Your task to perform on an android device: turn on the 24-hour format for clock Image 0: 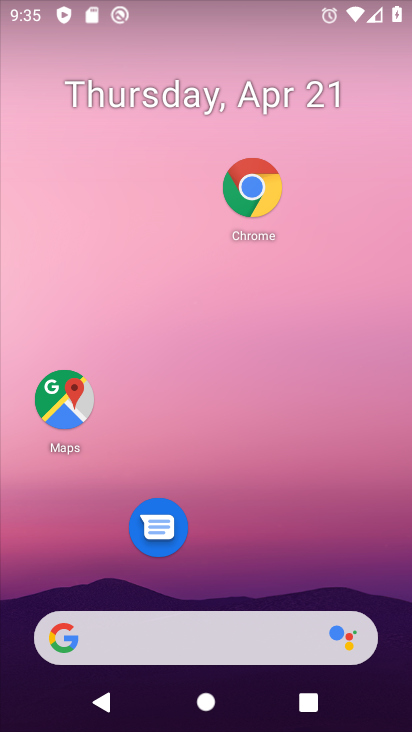
Step 0: click (309, 7)
Your task to perform on an android device: turn on the 24-hour format for clock Image 1: 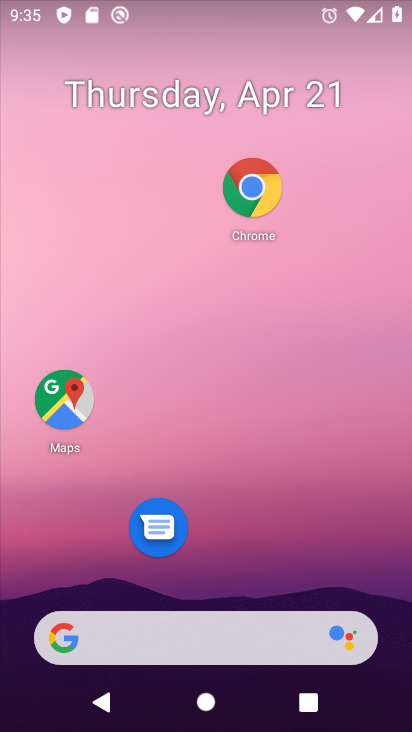
Step 1: drag from (221, 604) to (314, 137)
Your task to perform on an android device: turn on the 24-hour format for clock Image 2: 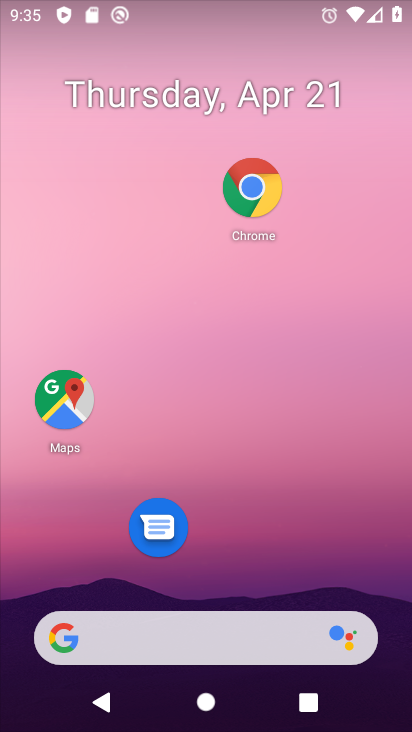
Step 2: drag from (298, 594) to (320, 140)
Your task to perform on an android device: turn on the 24-hour format for clock Image 3: 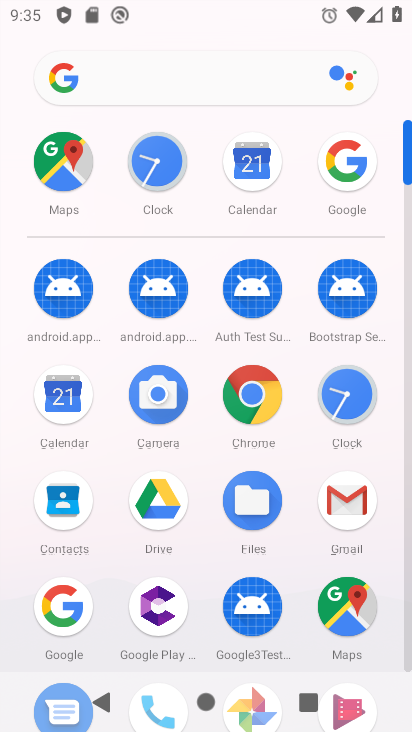
Step 3: click (347, 413)
Your task to perform on an android device: turn on the 24-hour format for clock Image 4: 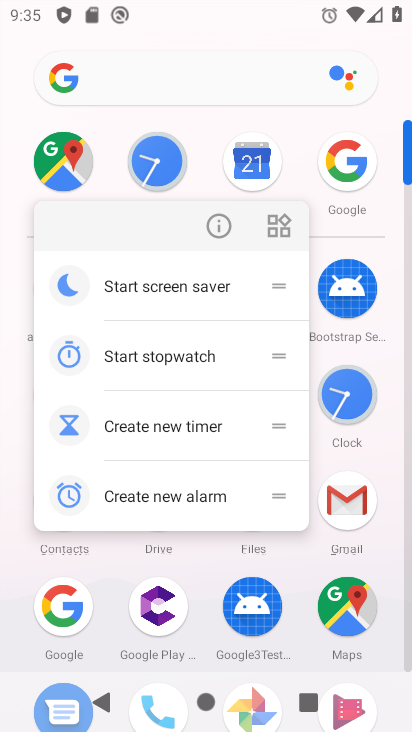
Step 4: click (347, 422)
Your task to perform on an android device: turn on the 24-hour format for clock Image 5: 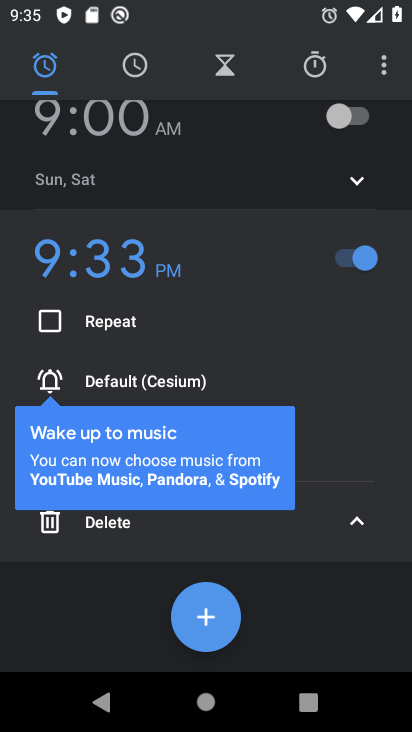
Step 5: click (382, 82)
Your task to perform on an android device: turn on the 24-hour format for clock Image 6: 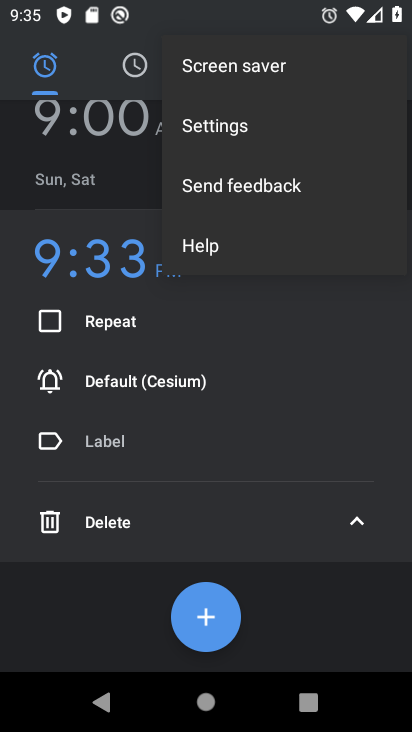
Step 6: click (249, 117)
Your task to perform on an android device: turn on the 24-hour format for clock Image 7: 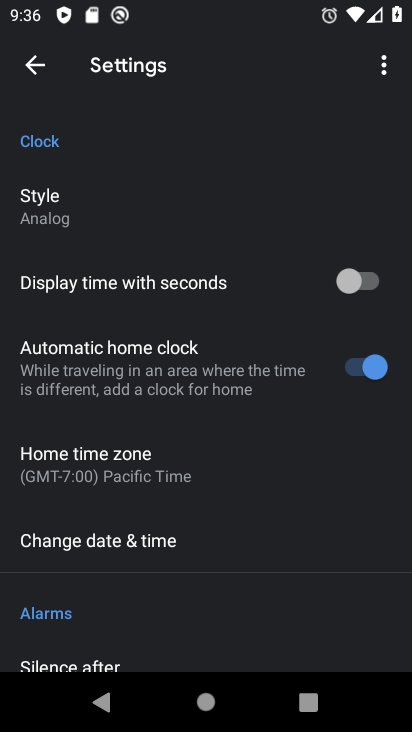
Step 7: click (195, 536)
Your task to perform on an android device: turn on the 24-hour format for clock Image 8: 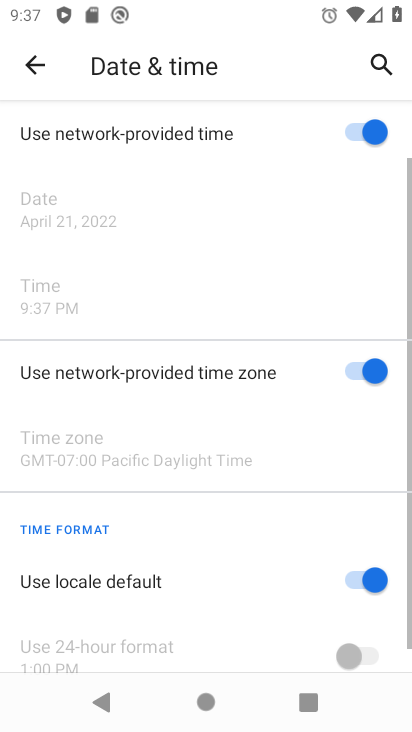
Step 8: task complete